Your task to perform on an android device: What is the recent news? Image 0: 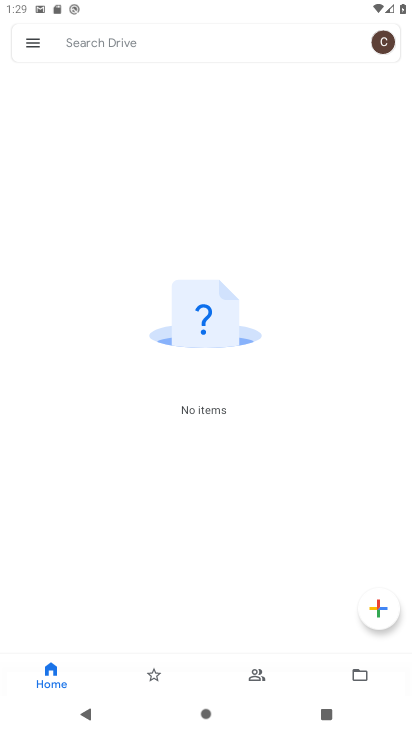
Step 0: press home button
Your task to perform on an android device: What is the recent news? Image 1: 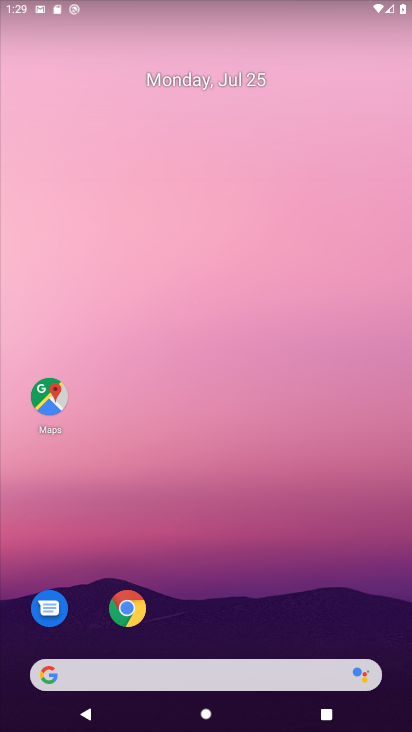
Step 1: task complete